Your task to perform on an android device: turn on airplane mode Image 0: 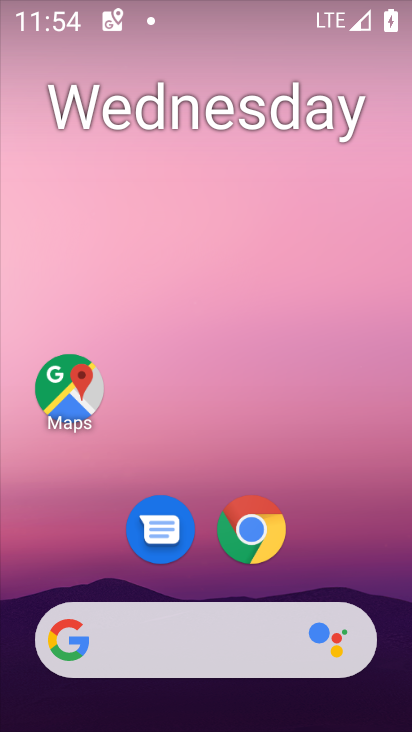
Step 0: drag from (399, 619) to (312, 94)
Your task to perform on an android device: turn on airplane mode Image 1: 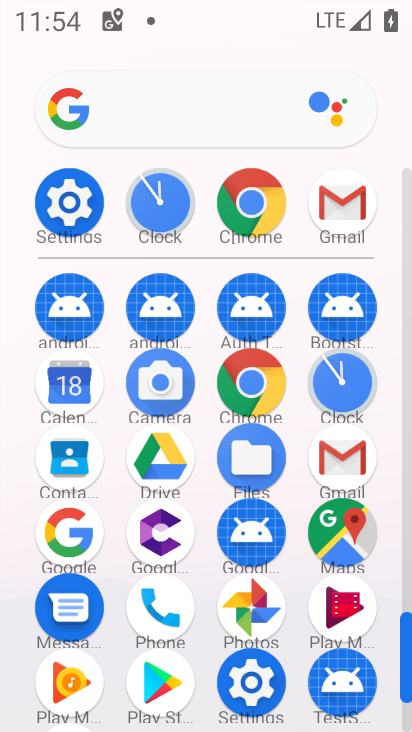
Step 1: click (253, 681)
Your task to perform on an android device: turn on airplane mode Image 2: 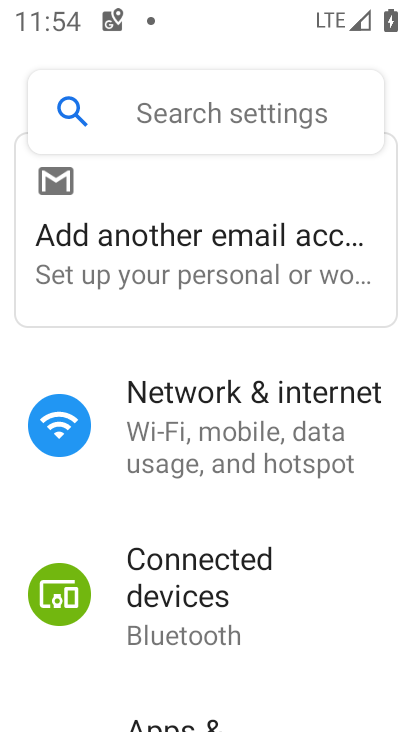
Step 2: click (207, 410)
Your task to perform on an android device: turn on airplane mode Image 3: 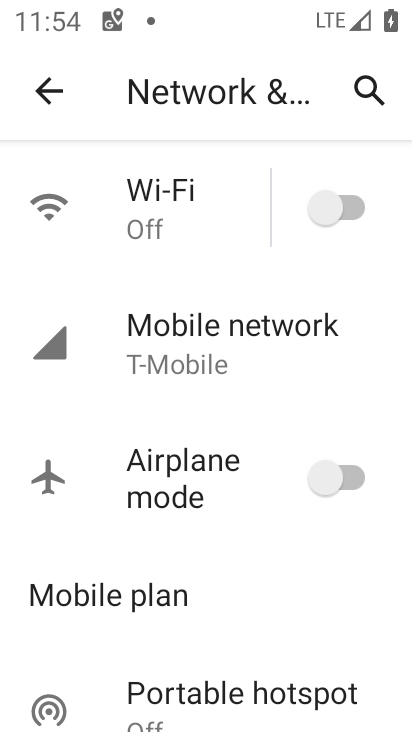
Step 3: click (341, 472)
Your task to perform on an android device: turn on airplane mode Image 4: 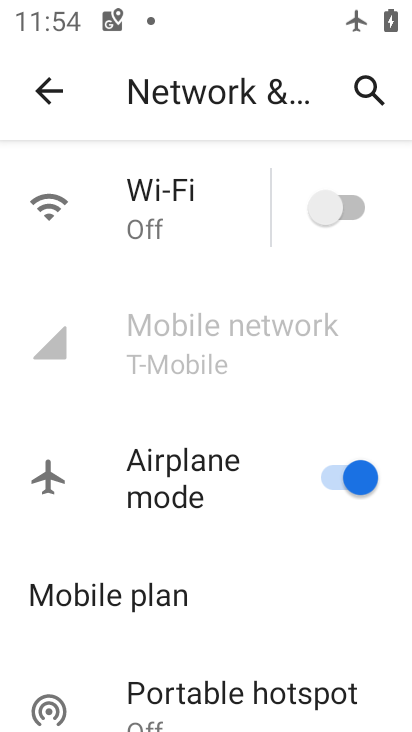
Step 4: task complete